Your task to perform on an android device: visit the assistant section in the google photos Image 0: 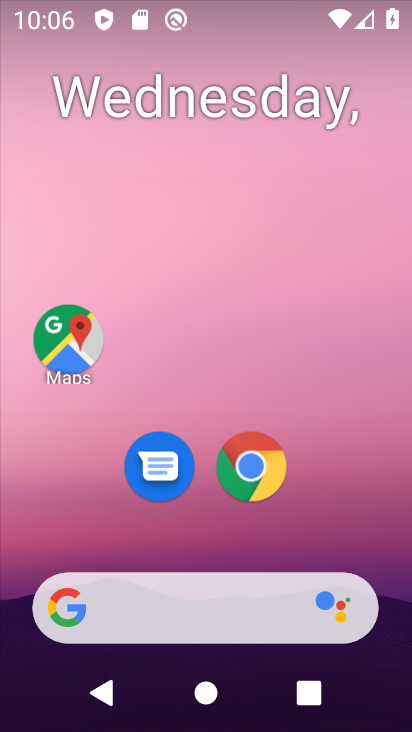
Step 0: drag from (217, 532) to (186, 102)
Your task to perform on an android device: visit the assistant section in the google photos Image 1: 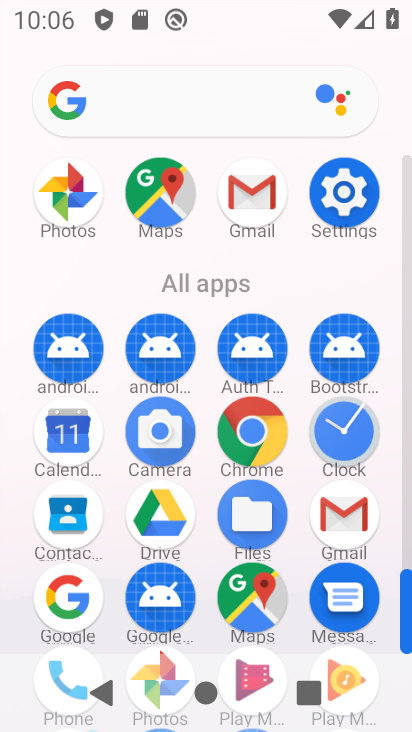
Step 1: click (73, 192)
Your task to perform on an android device: visit the assistant section in the google photos Image 2: 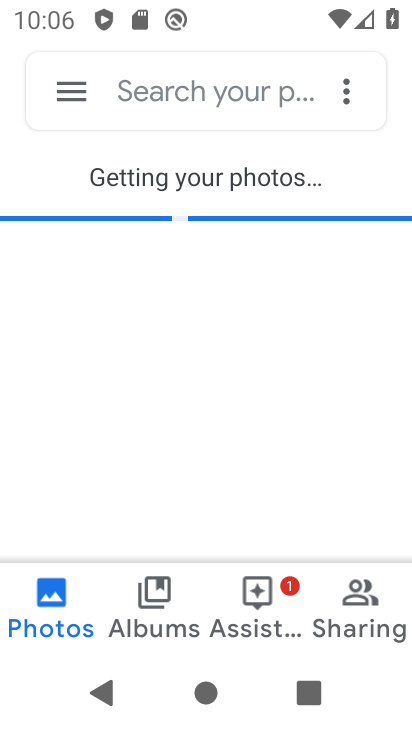
Step 2: click (255, 622)
Your task to perform on an android device: visit the assistant section in the google photos Image 3: 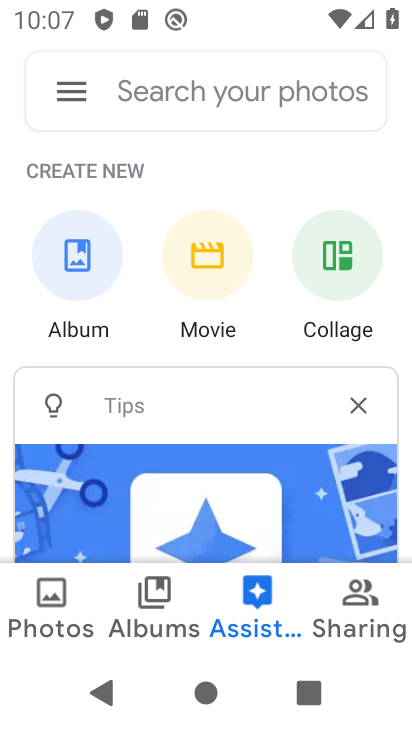
Step 3: task complete